Your task to perform on an android device: Check the news Image 0: 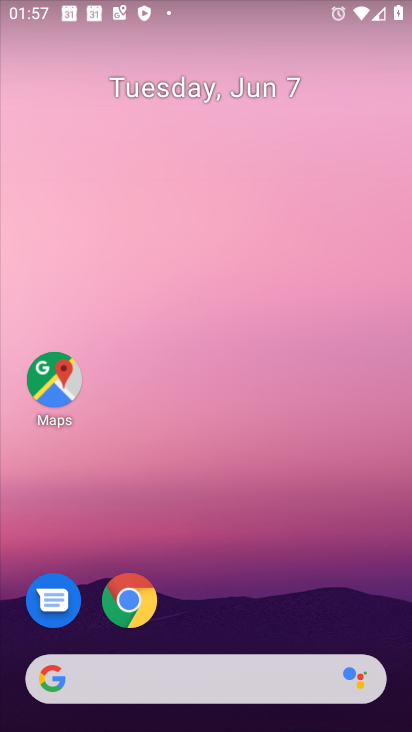
Step 0: drag from (2, 214) to (357, 233)
Your task to perform on an android device: Check the news Image 1: 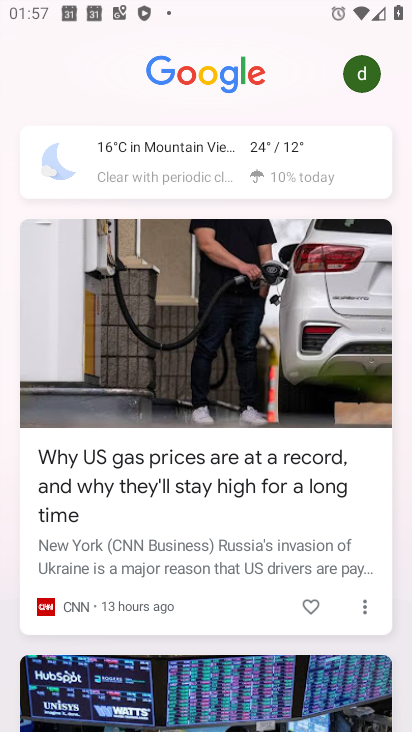
Step 1: task complete